Your task to perform on an android device: Open maps Image 0: 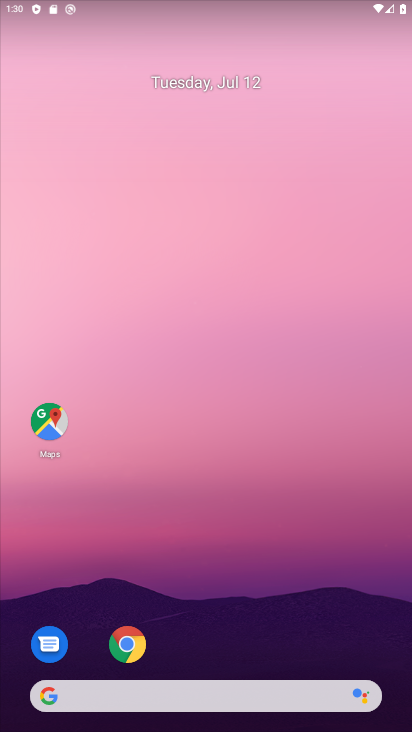
Step 0: drag from (197, 673) to (173, 90)
Your task to perform on an android device: Open maps Image 1: 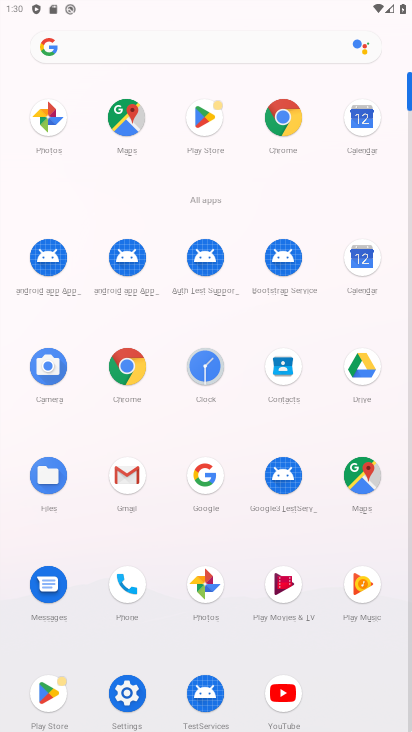
Step 1: click (359, 482)
Your task to perform on an android device: Open maps Image 2: 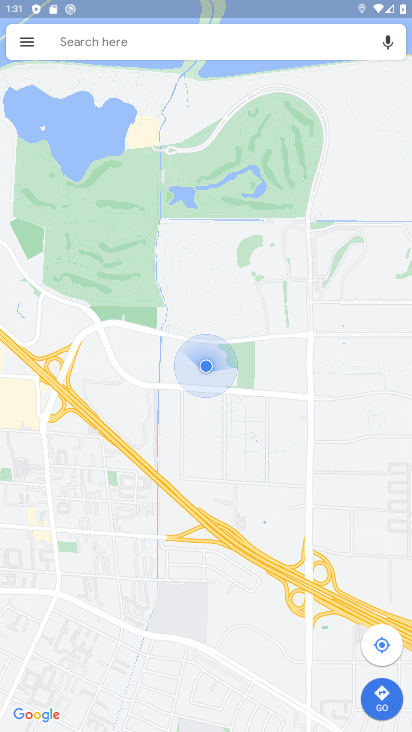
Step 2: task complete